Your task to perform on an android device: Open Wikipedia Image 0: 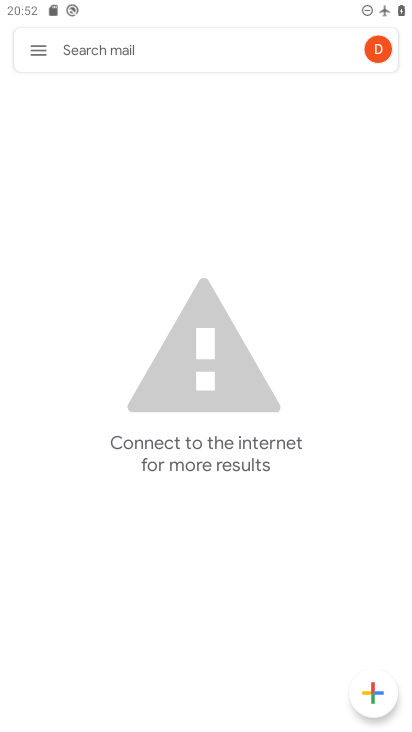
Step 0: press home button
Your task to perform on an android device: Open Wikipedia Image 1: 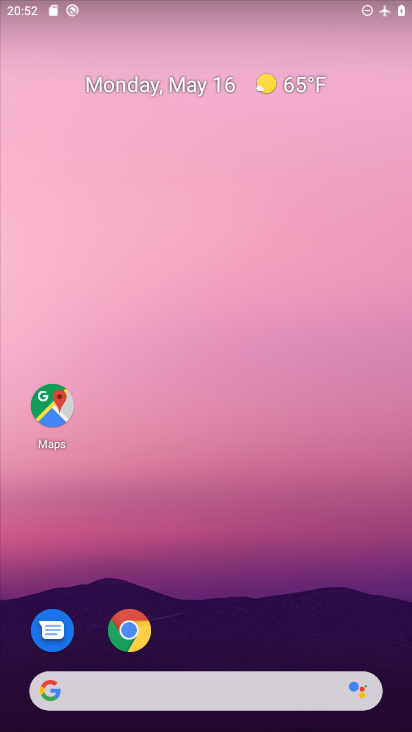
Step 1: click (182, 684)
Your task to perform on an android device: Open Wikipedia Image 2: 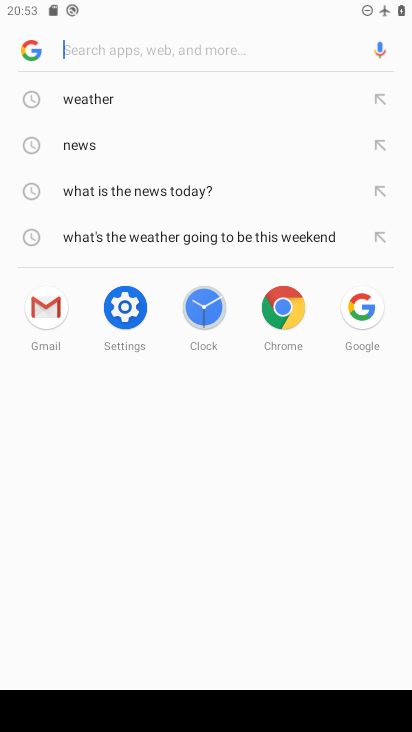
Step 2: type "wikipedia"
Your task to perform on an android device: Open Wikipedia Image 3: 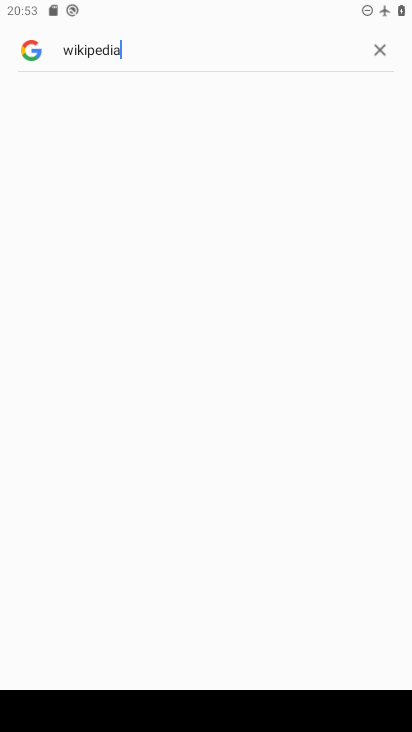
Step 3: task complete